Your task to perform on an android device: check the backup settings in the google photos Image 0: 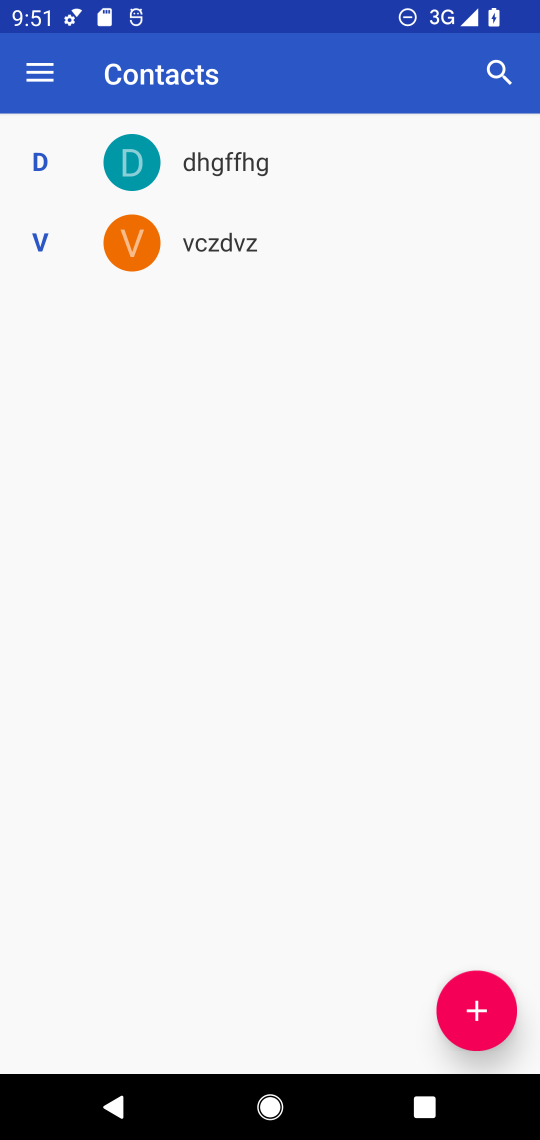
Step 0: press home button
Your task to perform on an android device: check the backup settings in the google photos Image 1: 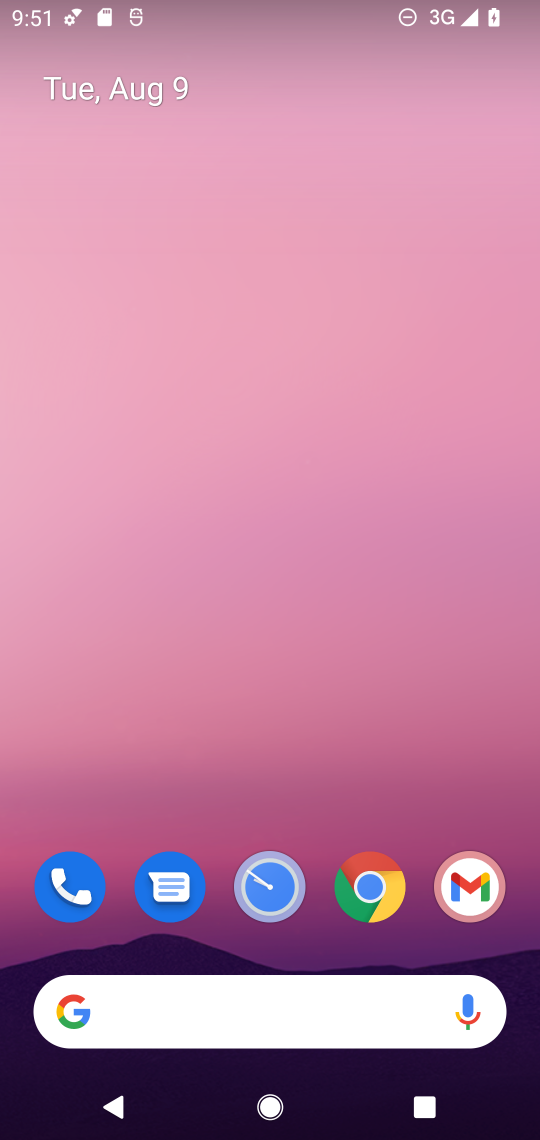
Step 1: drag from (292, 797) to (284, 244)
Your task to perform on an android device: check the backup settings in the google photos Image 2: 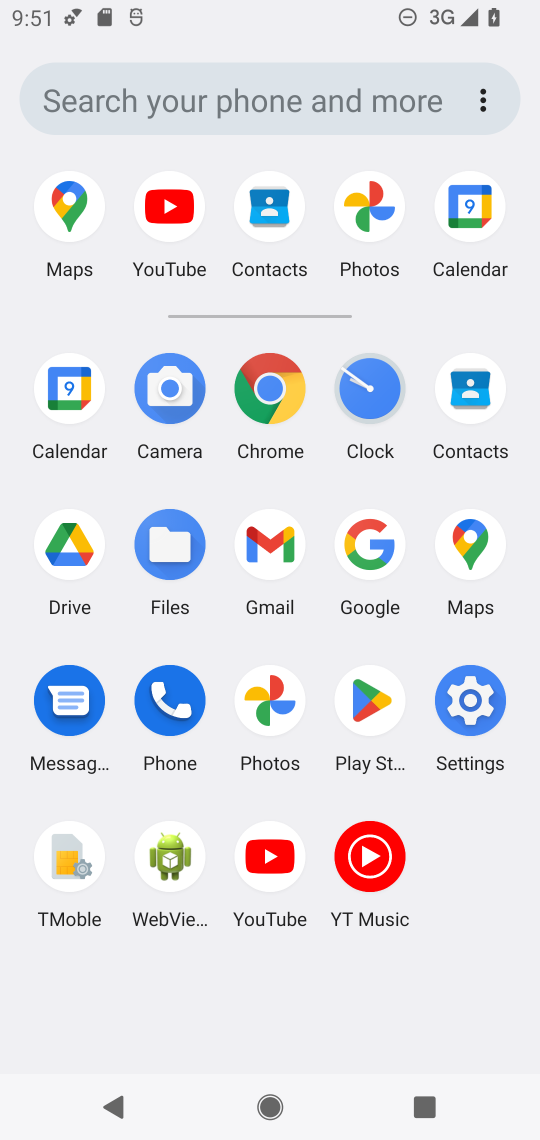
Step 2: click (363, 228)
Your task to perform on an android device: check the backup settings in the google photos Image 3: 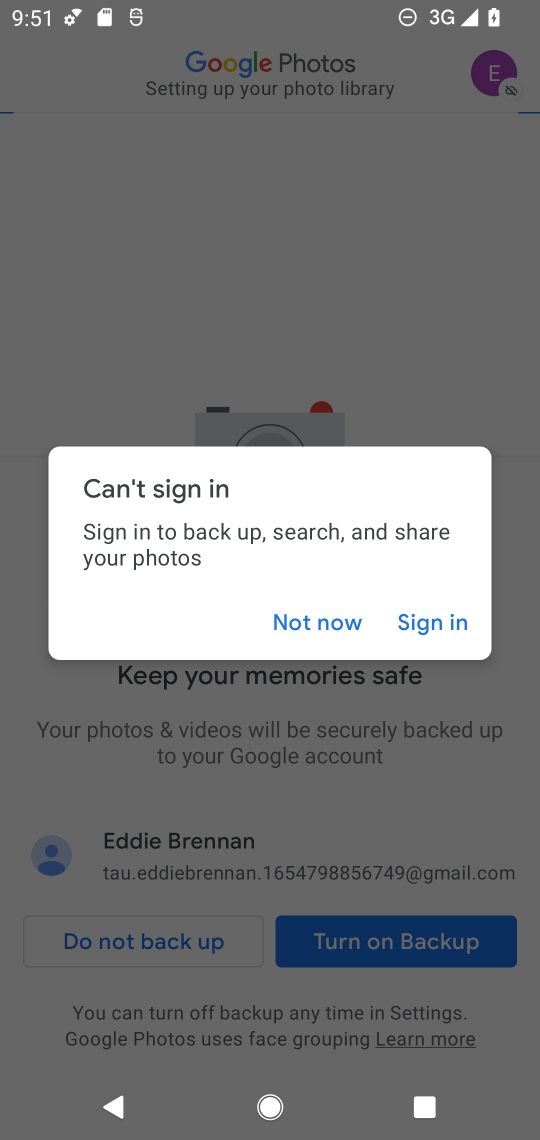
Step 3: click (334, 630)
Your task to perform on an android device: check the backup settings in the google photos Image 4: 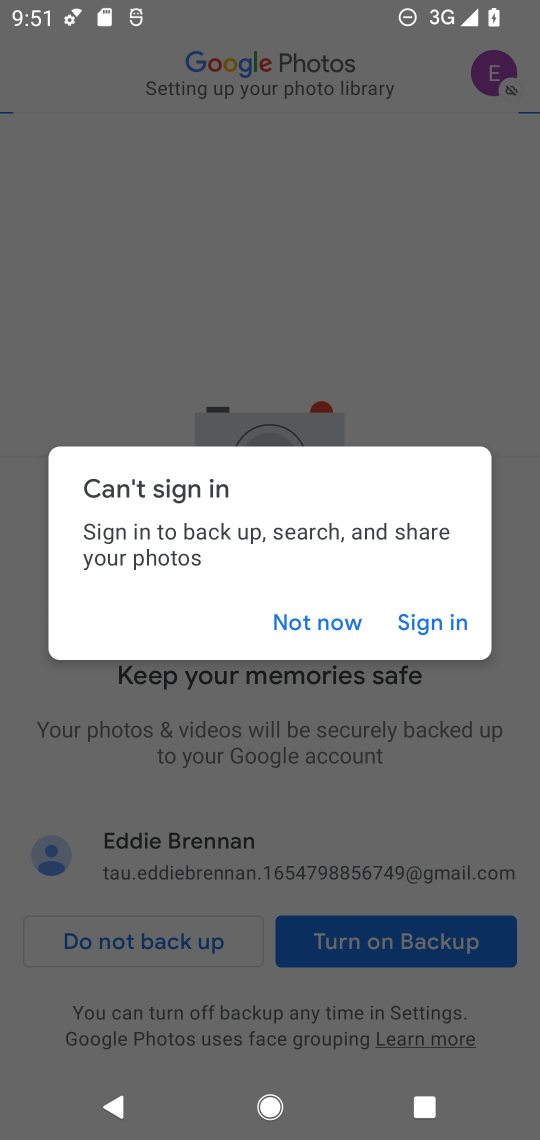
Step 4: click (296, 261)
Your task to perform on an android device: check the backup settings in the google photos Image 5: 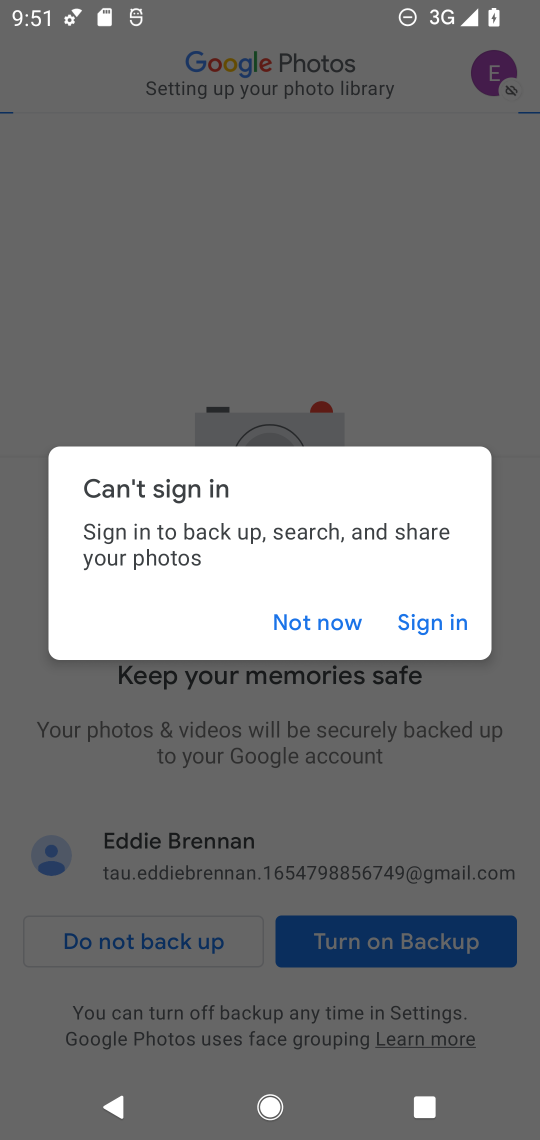
Step 5: task complete